Your task to perform on an android device: What's the weather going to be tomorrow? Image 0: 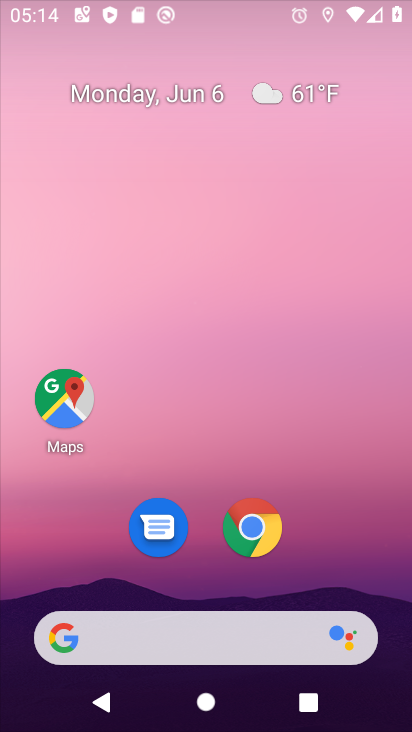
Step 0: drag from (384, 674) to (362, 100)
Your task to perform on an android device: What's the weather going to be tomorrow? Image 1: 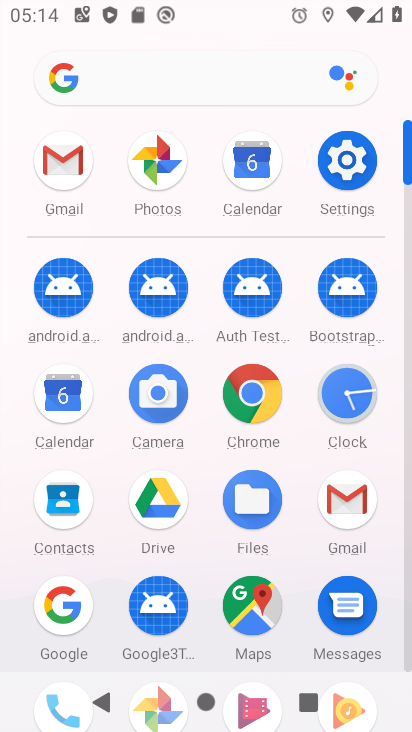
Step 1: click (341, 147)
Your task to perform on an android device: What's the weather going to be tomorrow? Image 2: 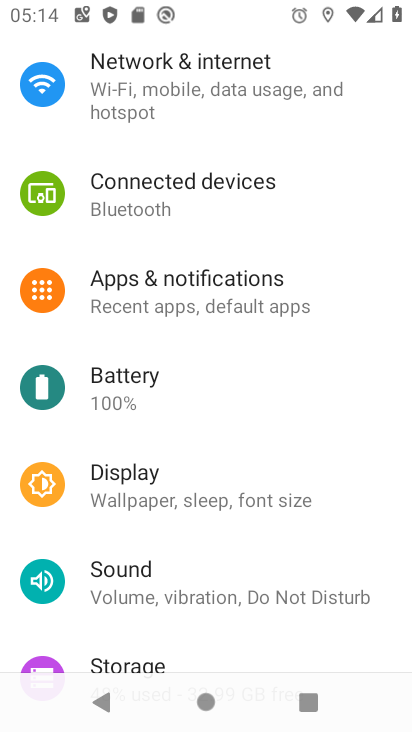
Step 2: press back button
Your task to perform on an android device: What's the weather going to be tomorrow? Image 3: 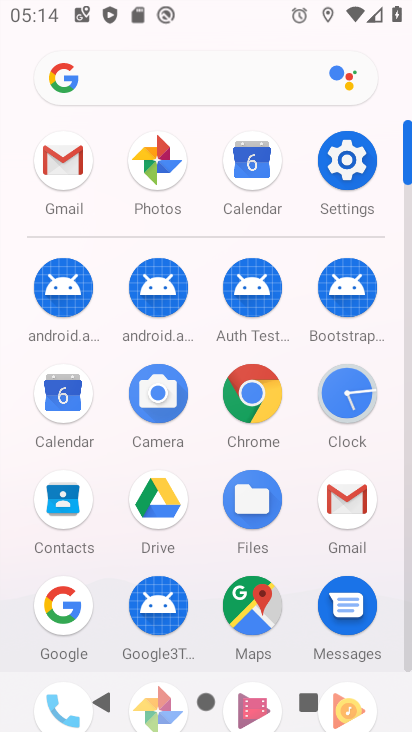
Step 3: press back button
Your task to perform on an android device: What's the weather going to be tomorrow? Image 4: 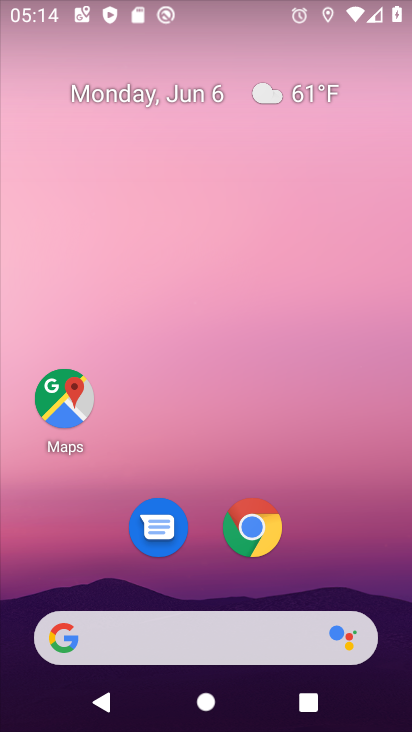
Step 4: click (310, 89)
Your task to perform on an android device: What's the weather going to be tomorrow? Image 5: 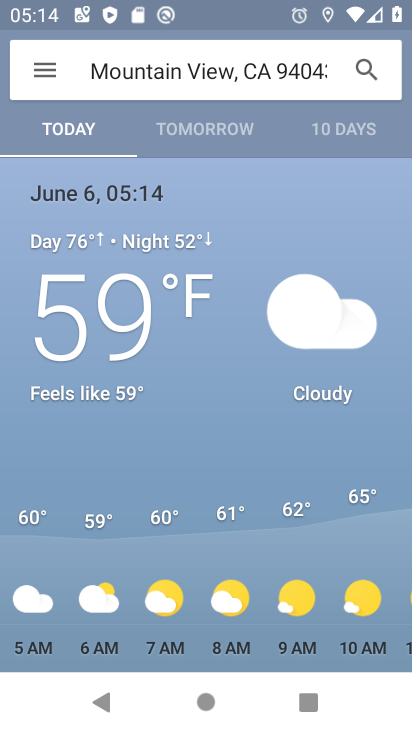
Step 5: click (193, 126)
Your task to perform on an android device: What's the weather going to be tomorrow? Image 6: 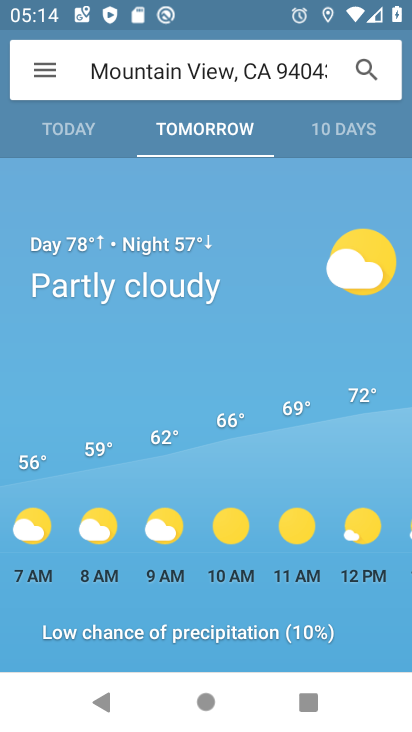
Step 6: task complete